Your task to perform on an android device: Go to Android settings Image 0: 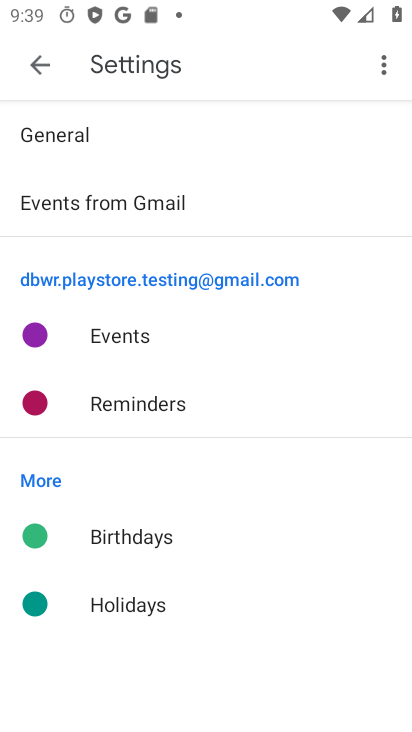
Step 0: press home button
Your task to perform on an android device: Go to Android settings Image 1: 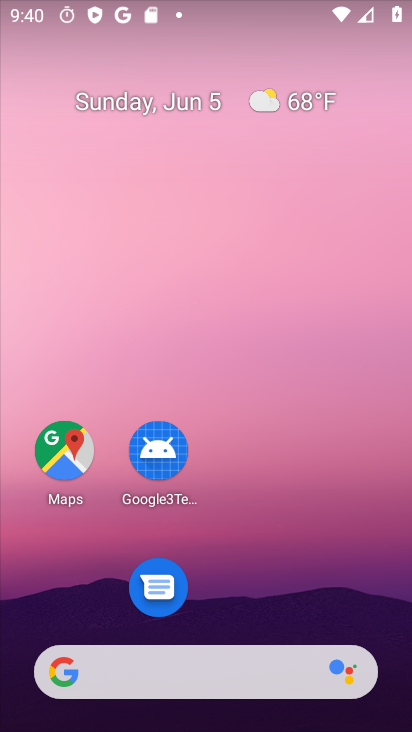
Step 1: drag from (266, 619) to (254, 268)
Your task to perform on an android device: Go to Android settings Image 2: 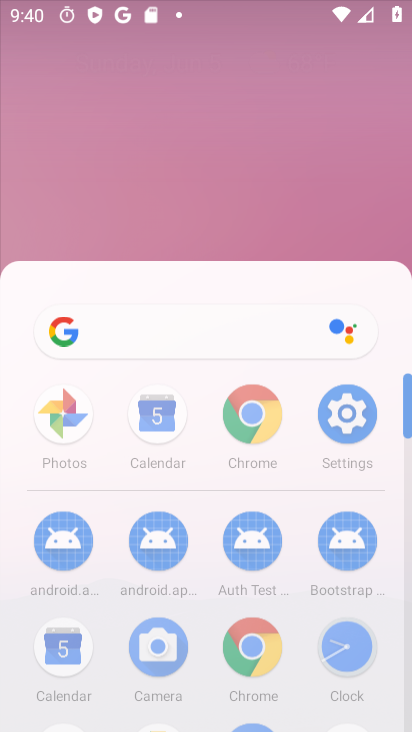
Step 2: click (254, 268)
Your task to perform on an android device: Go to Android settings Image 3: 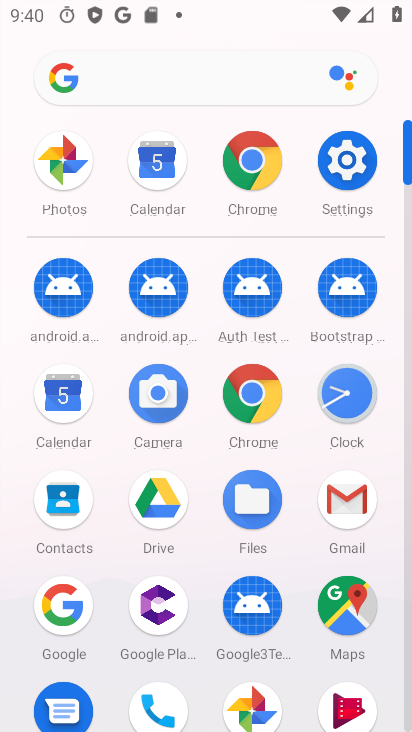
Step 3: click (345, 184)
Your task to perform on an android device: Go to Android settings Image 4: 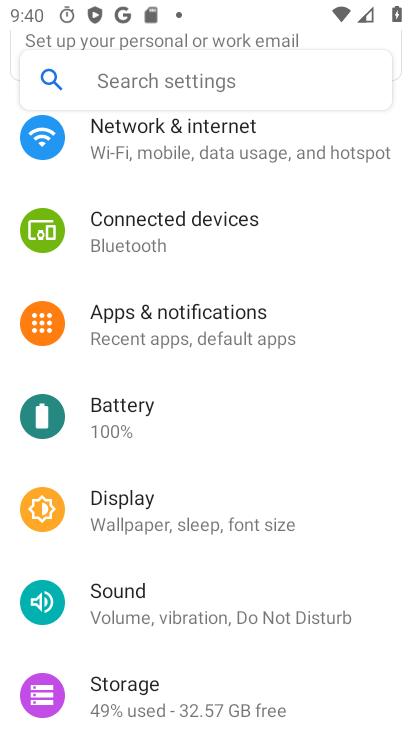
Step 4: task complete